Your task to perform on an android device: Go to eBay Image 0: 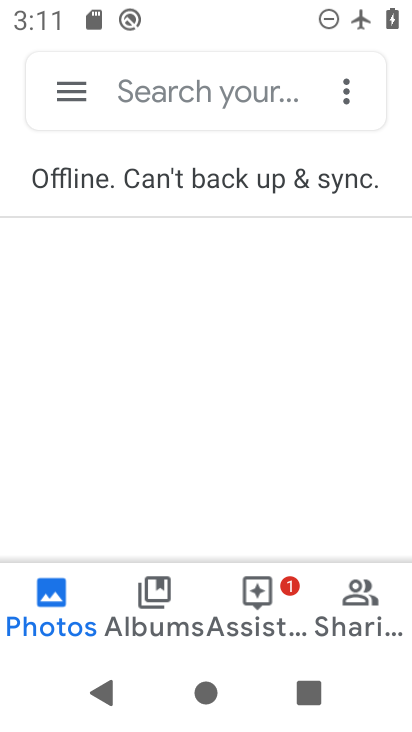
Step 0: press home button
Your task to perform on an android device: Go to eBay Image 1: 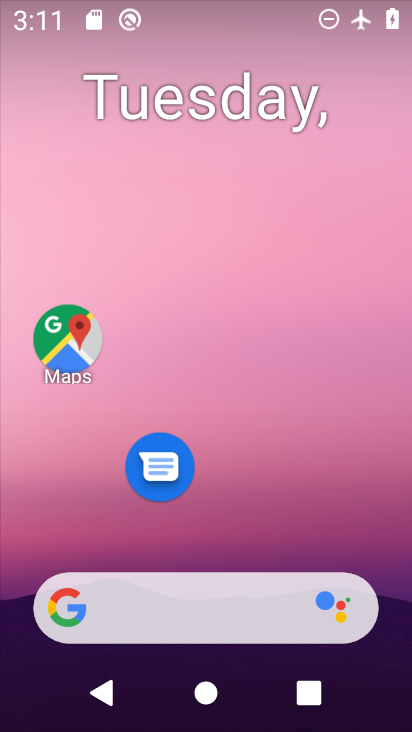
Step 1: drag from (218, 538) to (235, 60)
Your task to perform on an android device: Go to eBay Image 2: 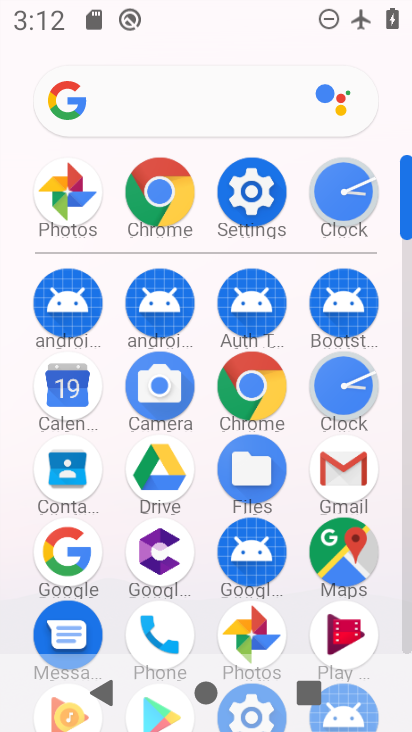
Step 2: click (155, 193)
Your task to perform on an android device: Go to eBay Image 3: 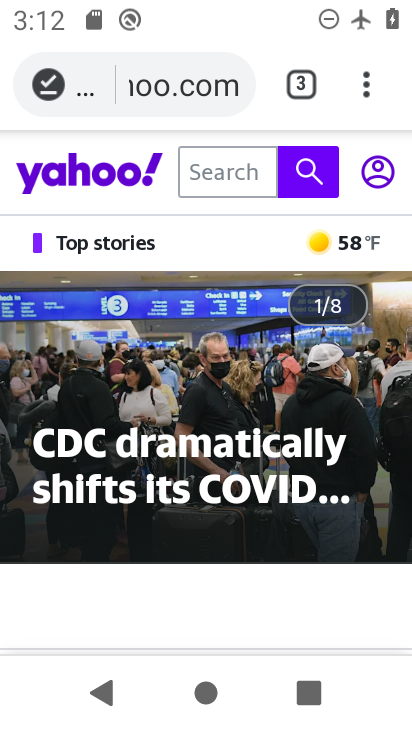
Step 3: click (191, 77)
Your task to perform on an android device: Go to eBay Image 4: 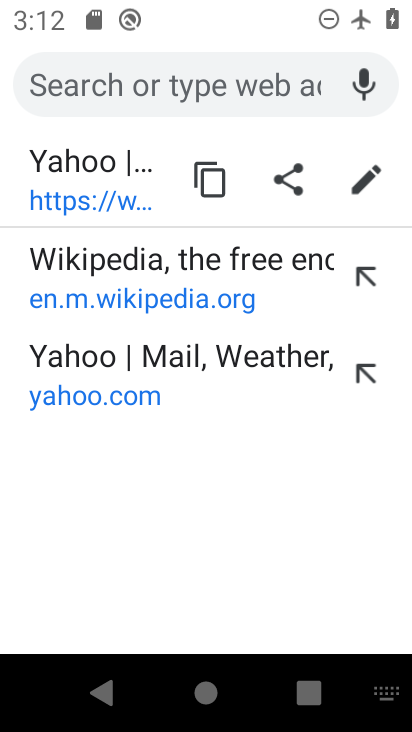
Step 4: type "ebay"
Your task to perform on an android device: Go to eBay Image 5: 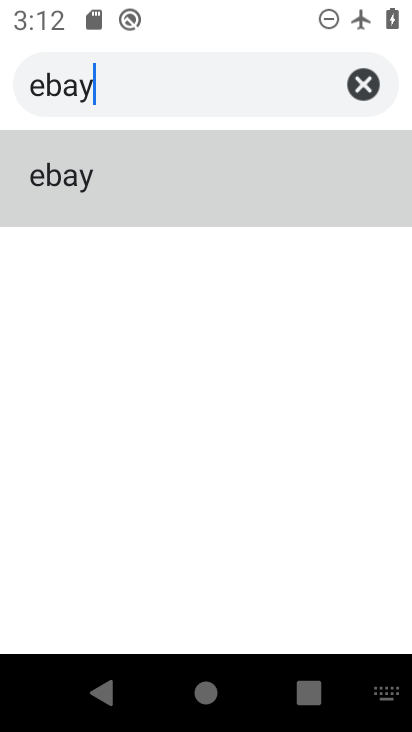
Step 5: click (128, 188)
Your task to perform on an android device: Go to eBay Image 6: 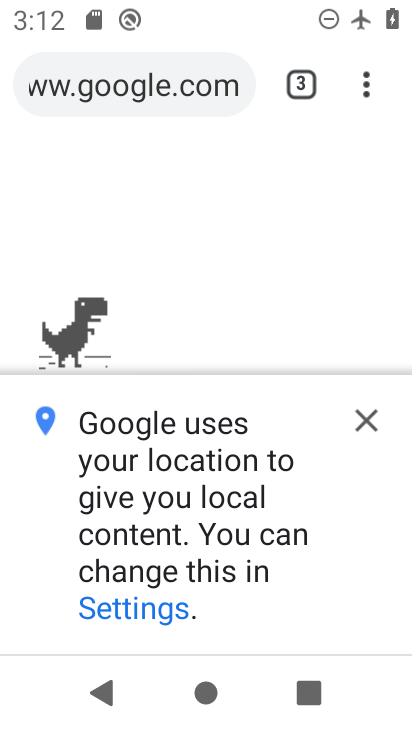
Step 6: task complete